Your task to perform on an android device: Open Android settings Image 0: 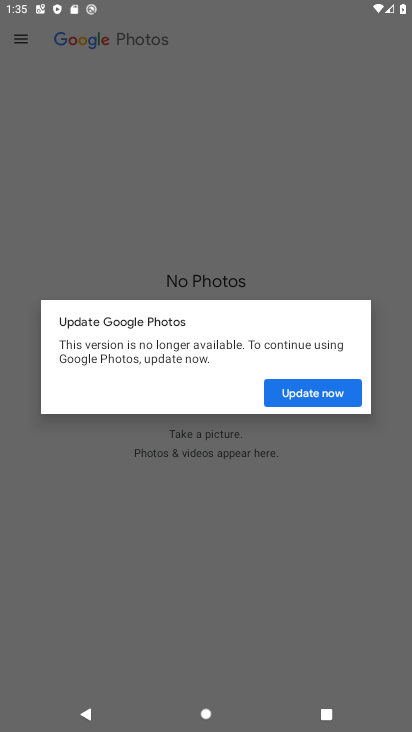
Step 0: click (409, 340)
Your task to perform on an android device: Open Android settings Image 1: 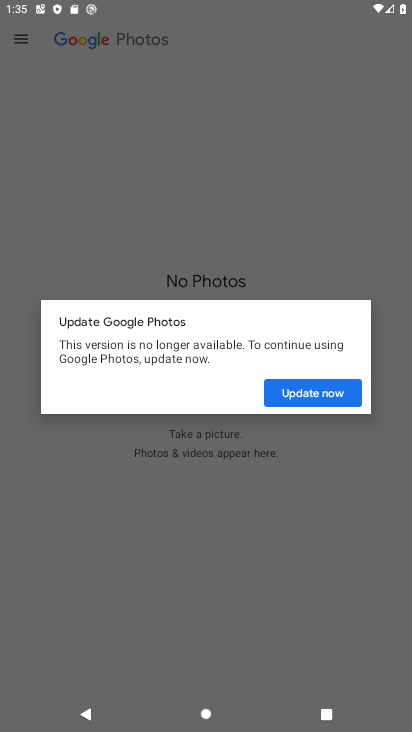
Step 1: press home button
Your task to perform on an android device: Open Android settings Image 2: 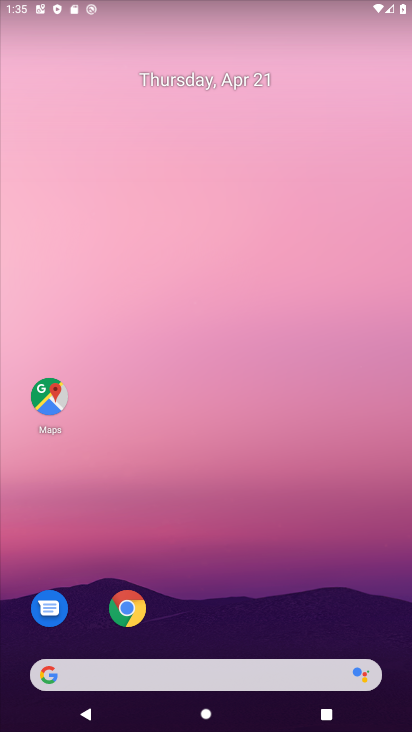
Step 2: drag from (268, 384) to (308, 27)
Your task to perform on an android device: Open Android settings Image 3: 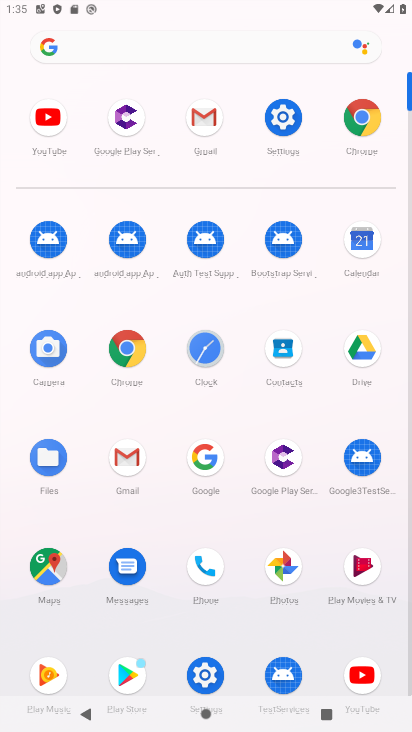
Step 3: click (275, 127)
Your task to perform on an android device: Open Android settings Image 4: 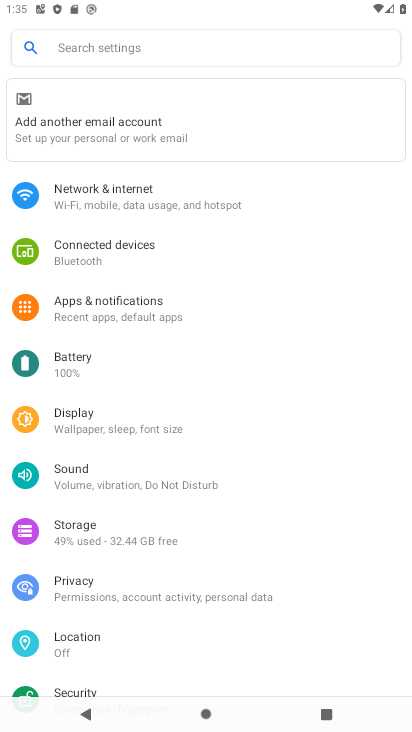
Step 4: drag from (222, 582) to (278, 310)
Your task to perform on an android device: Open Android settings Image 5: 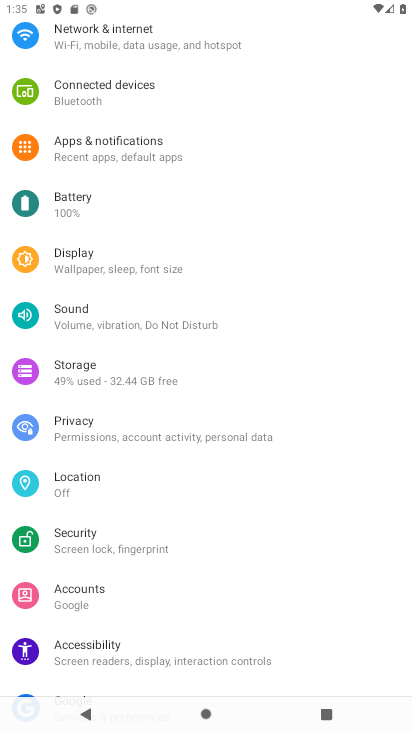
Step 5: drag from (250, 583) to (294, 152)
Your task to perform on an android device: Open Android settings Image 6: 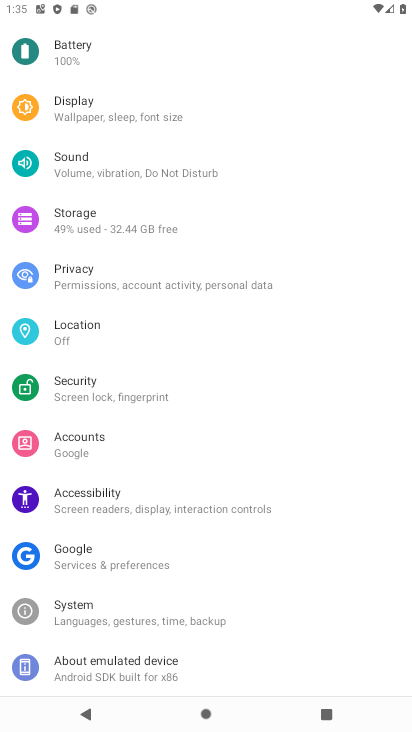
Step 6: drag from (201, 574) to (229, 332)
Your task to perform on an android device: Open Android settings Image 7: 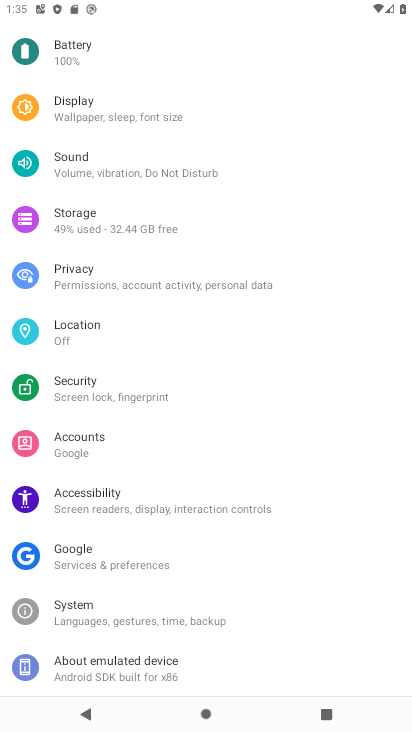
Step 7: click (138, 637)
Your task to perform on an android device: Open Android settings Image 8: 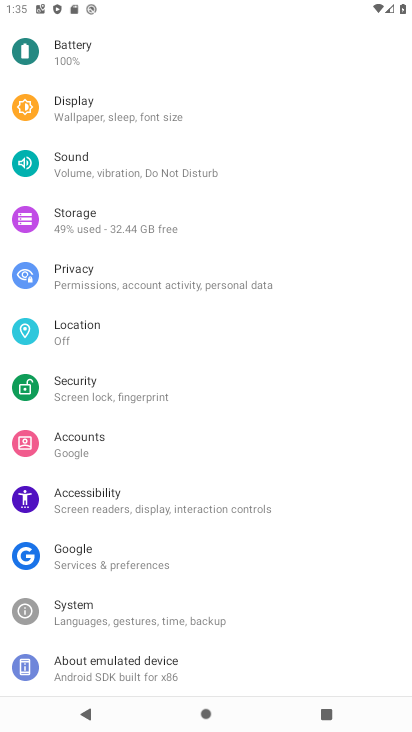
Step 8: click (131, 659)
Your task to perform on an android device: Open Android settings Image 9: 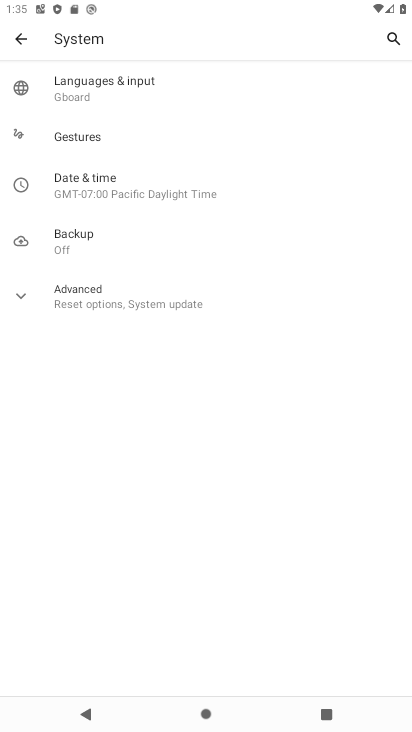
Step 9: click (21, 36)
Your task to perform on an android device: Open Android settings Image 10: 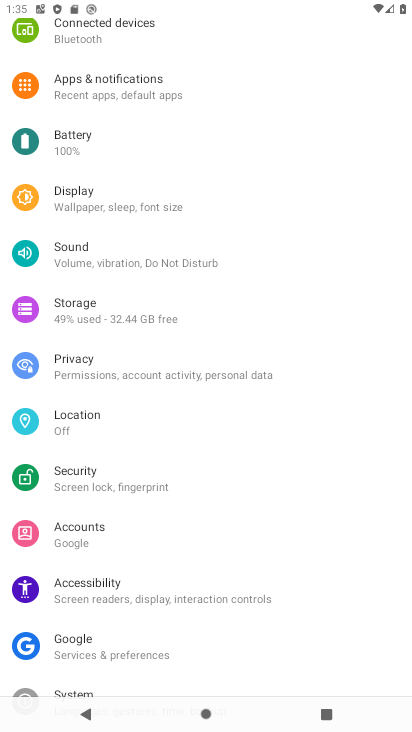
Step 10: drag from (203, 543) to (228, 224)
Your task to perform on an android device: Open Android settings Image 11: 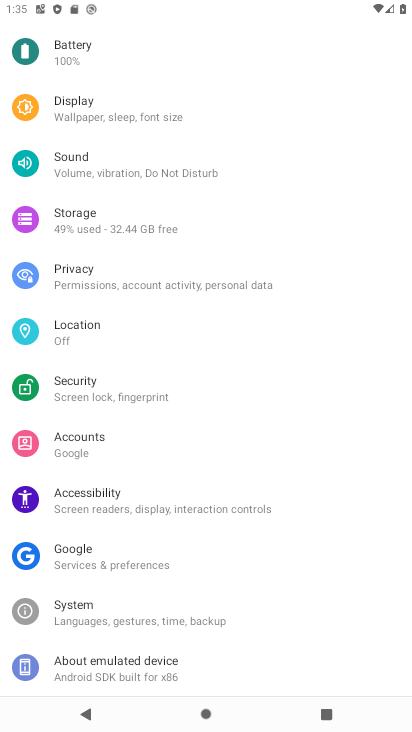
Step 11: click (93, 655)
Your task to perform on an android device: Open Android settings Image 12: 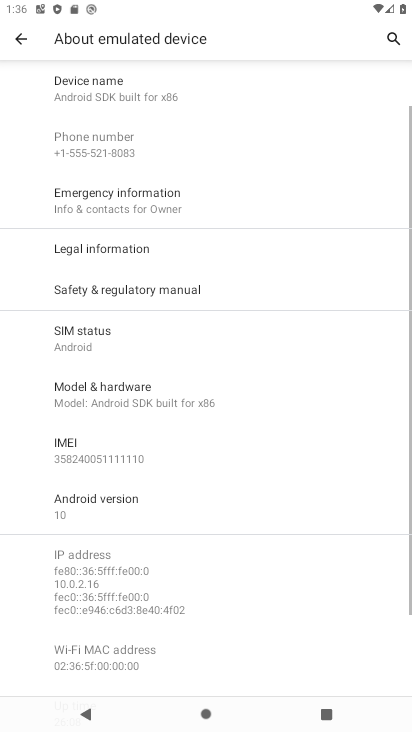
Step 12: task complete